Your task to perform on an android device: see sites visited before in the chrome app Image 0: 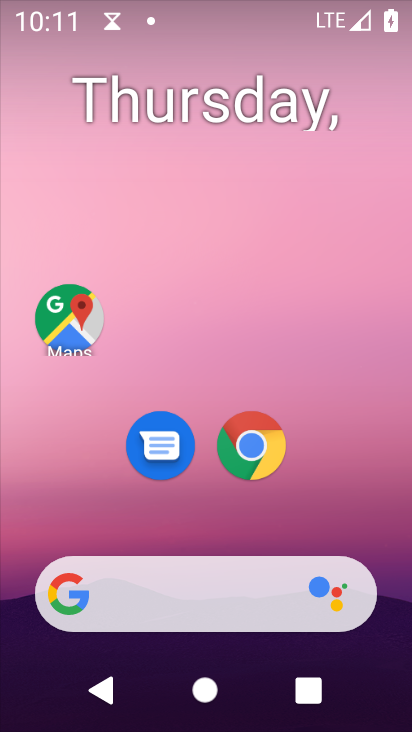
Step 0: drag from (393, 546) to (288, 100)
Your task to perform on an android device: see sites visited before in the chrome app Image 1: 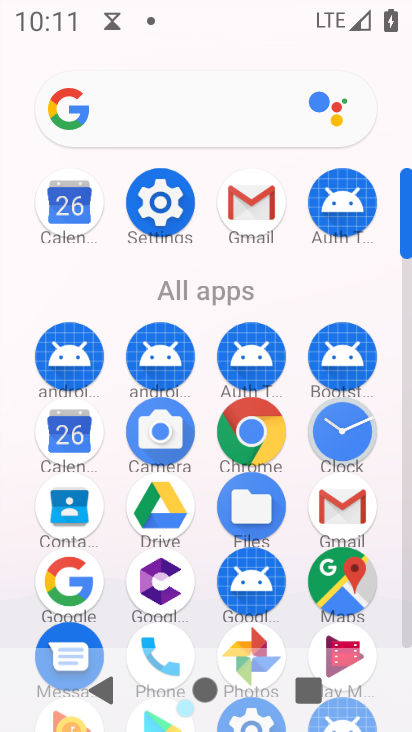
Step 1: click (271, 424)
Your task to perform on an android device: see sites visited before in the chrome app Image 2: 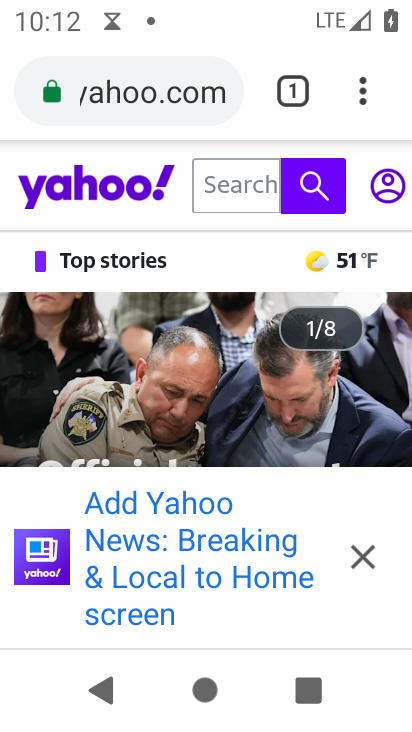
Step 2: click (369, 121)
Your task to perform on an android device: see sites visited before in the chrome app Image 3: 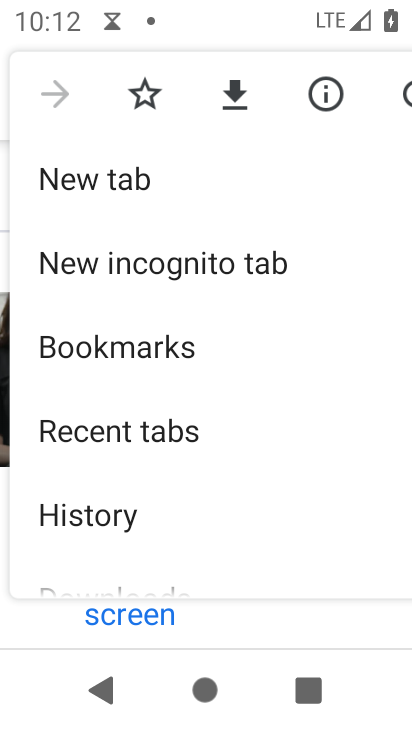
Step 3: click (147, 520)
Your task to perform on an android device: see sites visited before in the chrome app Image 4: 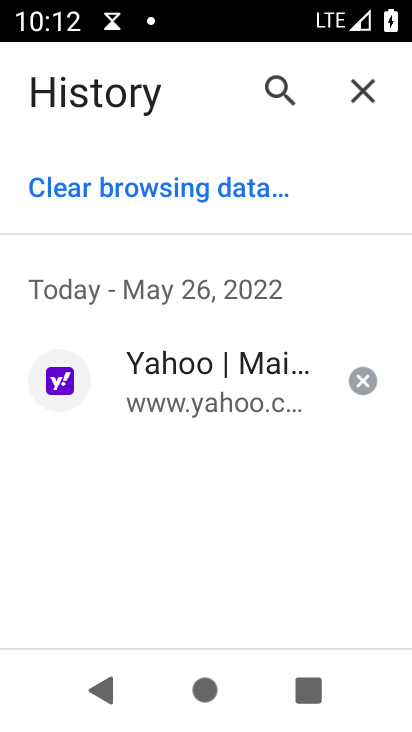
Step 4: task complete